Your task to perform on an android device: Open ESPN.com Image 0: 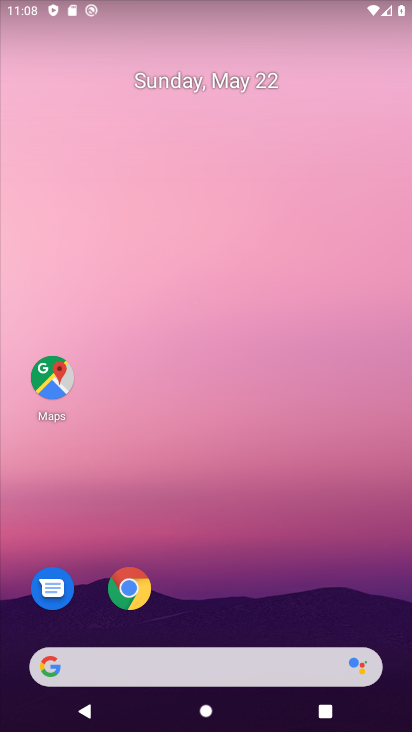
Step 0: click (136, 598)
Your task to perform on an android device: Open ESPN.com Image 1: 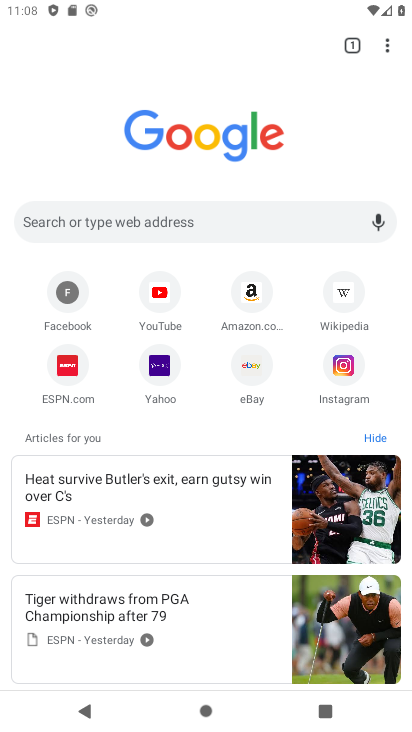
Step 1: click (69, 368)
Your task to perform on an android device: Open ESPN.com Image 2: 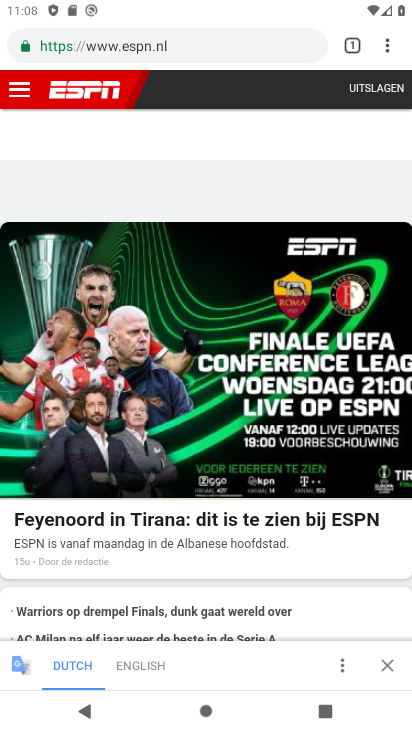
Step 2: task complete